Your task to perform on an android device: Go to sound settings Image 0: 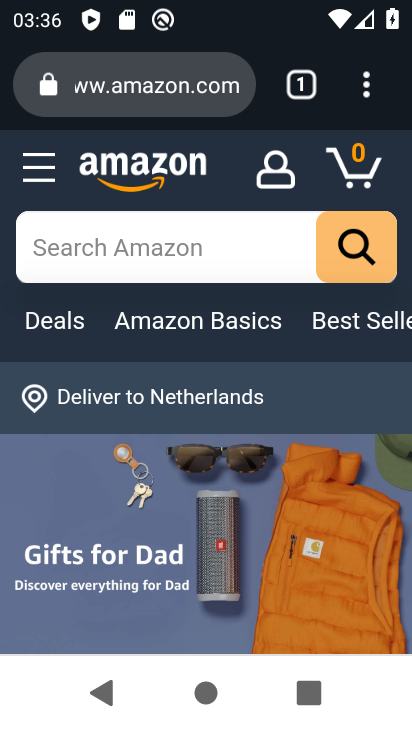
Step 0: press home button
Your task to perform on an android device: Go to sound settings Image 1: 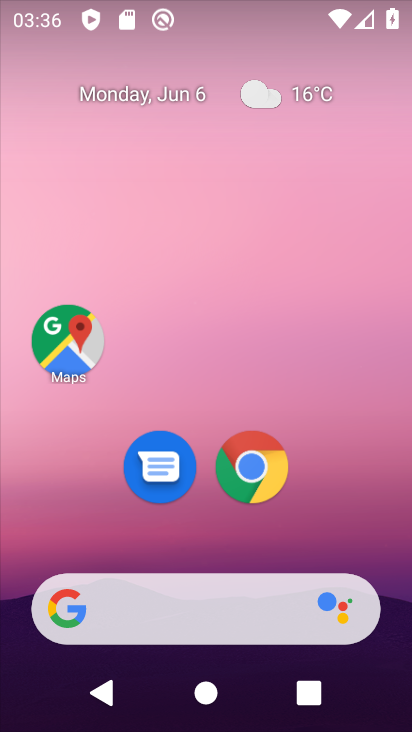
Step 1: drag from (204, 544) to (297, 2)
Your task to perform on an android device: Go to sound settings Image 2: 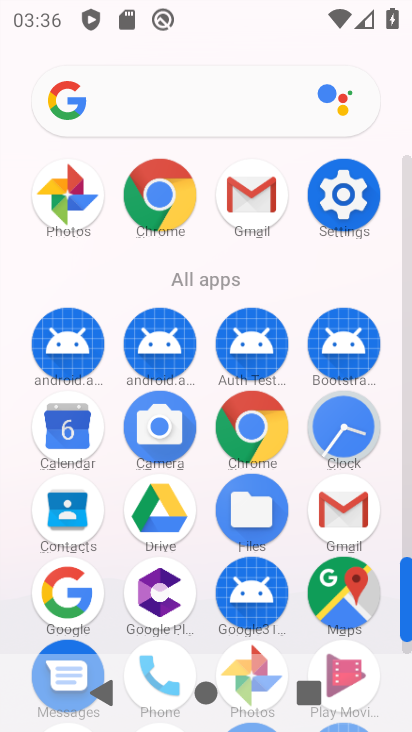
Step 2: click (351, 180)
Your task to perform on an android device: Go to sound settings Image 3: 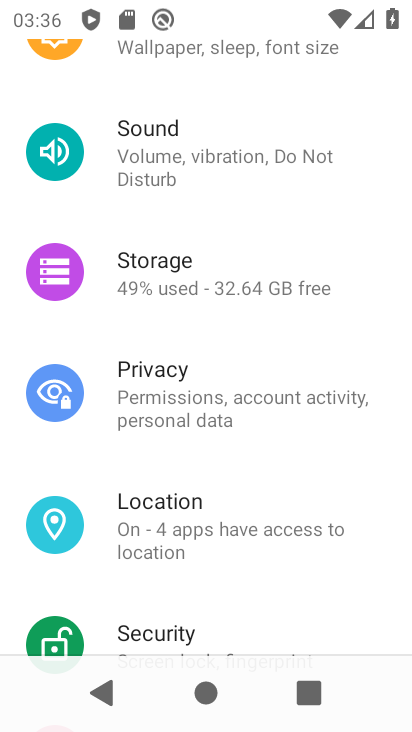
Step 3: click (192, 126)
Your task to perform on an android device: Go to sound settings Image 4: 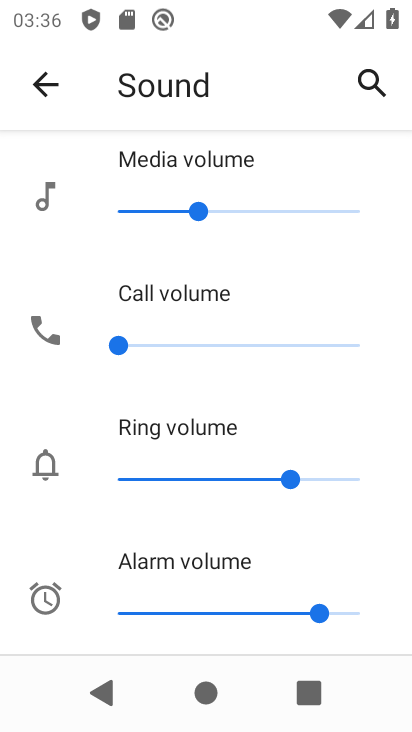
Step 4: drag from (82, 567) to (128, 92)
Your task to perform on an android device: Go to sound settings Image 5: 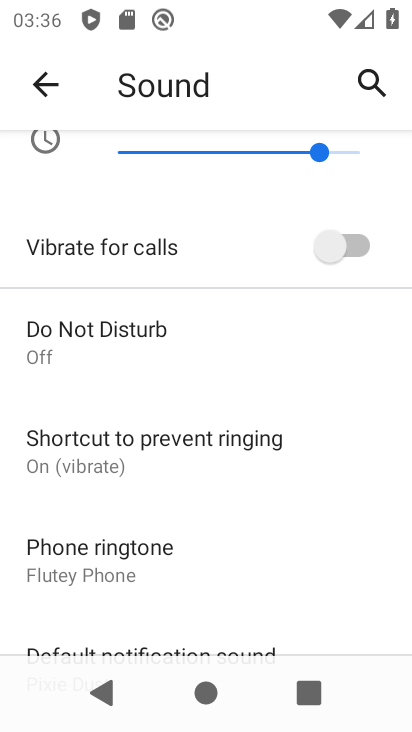
Step 5: drag from (149, 570) to (199, 101)
Your task to perform on an android device: Go to sound settings Image 6: 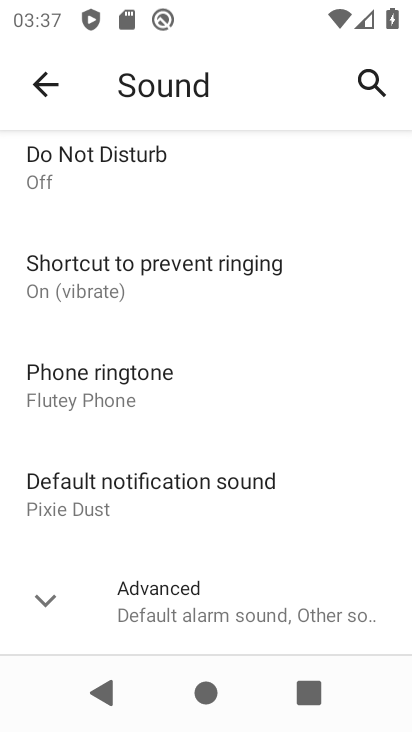
Step 6: click (35, 596)
Your task to perform on an android device: Go to sound settings Image 7: 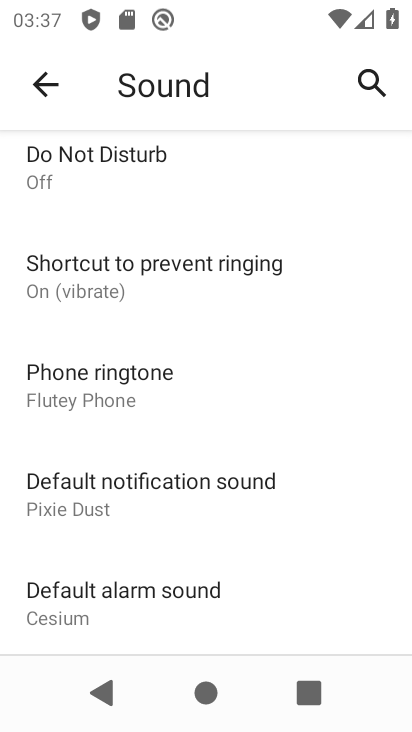
Step 7: task complete